Your task to perform on an android device: Open the web browser Image 0: 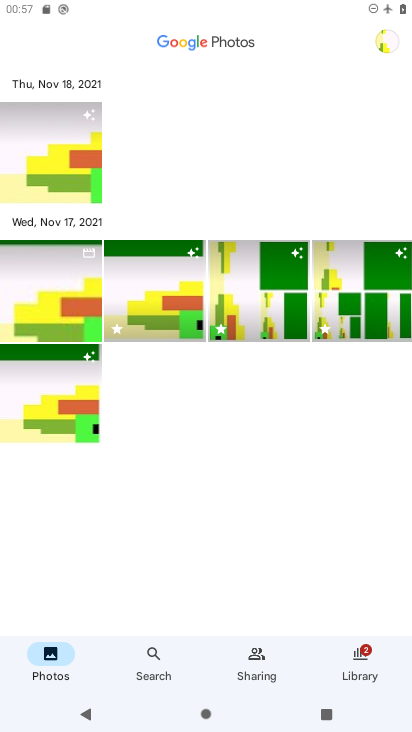
Step 0: press home button
Your task to perform on an android device: Open the web browser Image 1: 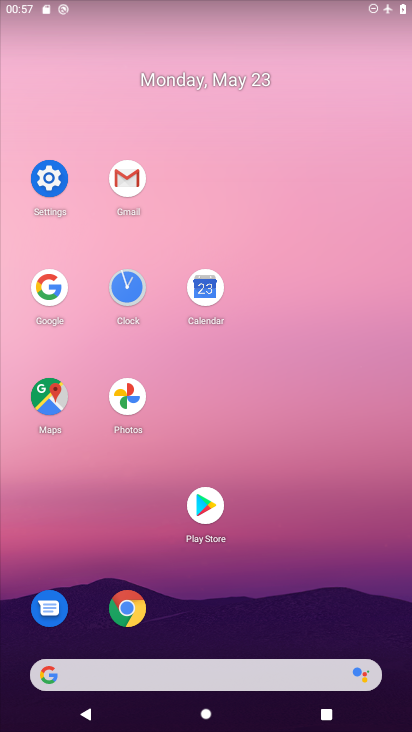
Step 1: click (142, 623)
Your task to perform on an android device: Open the web browser Image 2: 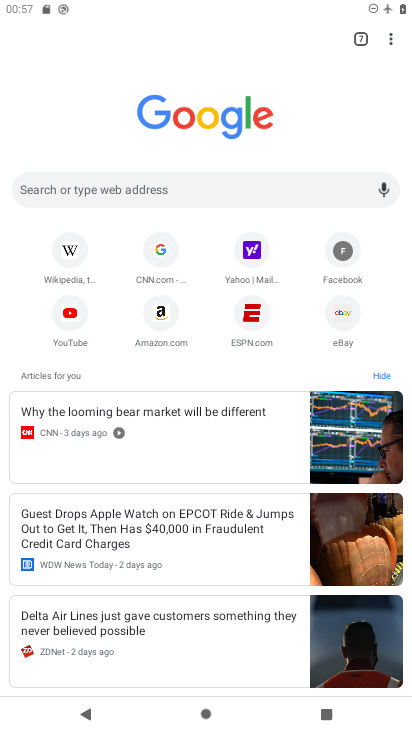
Step 2: task complete